Your task to perform on an android device: When is my next meeting? Image 0: 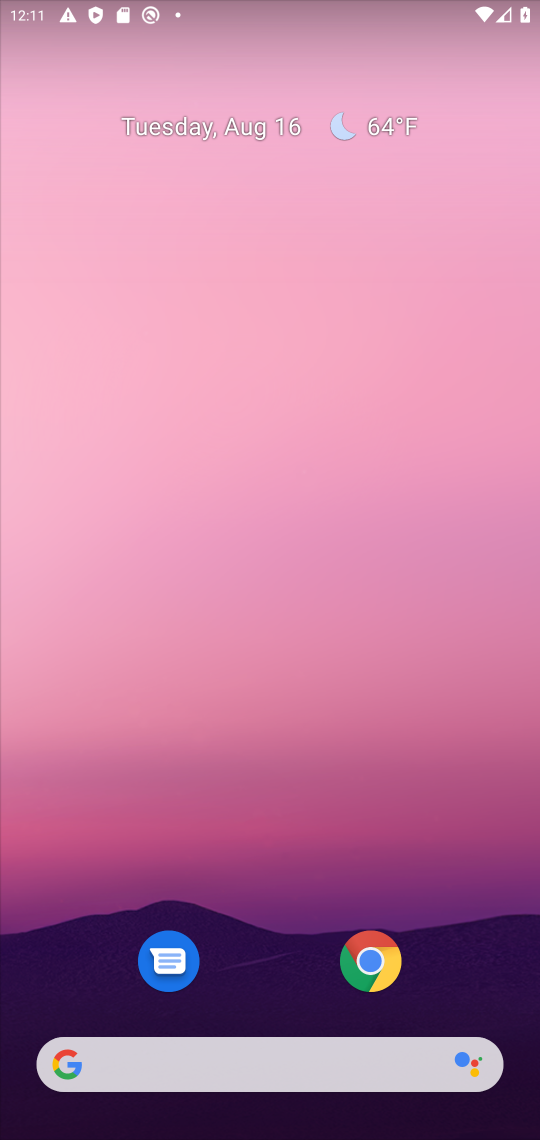
Step 0: drag from (313, 979) to (369, 127)
Your task to perform on an android device: When is my next meeting? Image 1: 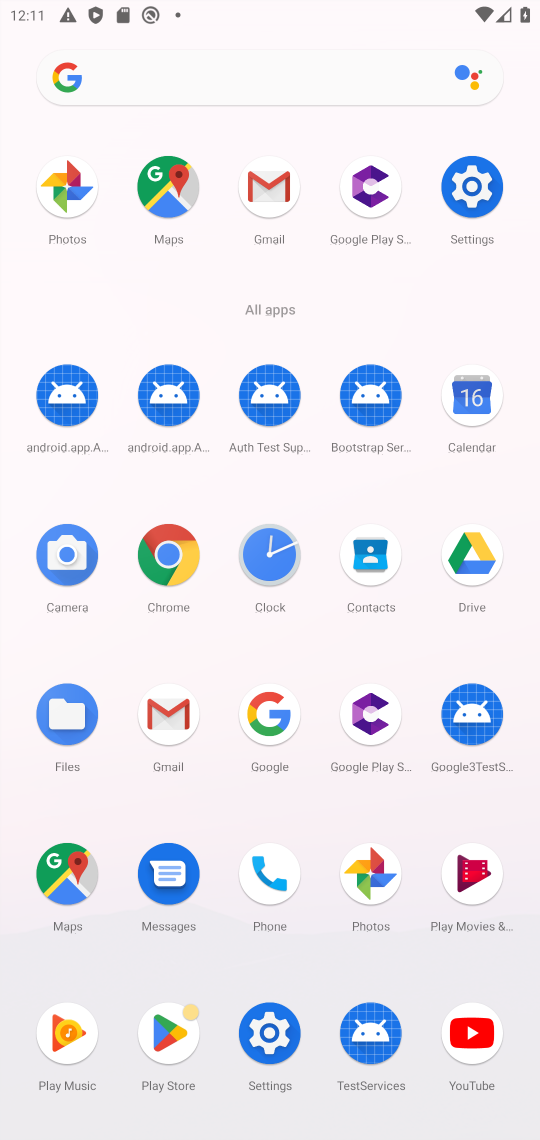
Step 1: click (468, 400)
Your task to perform on an android device: When is my next meeting? Image 2: 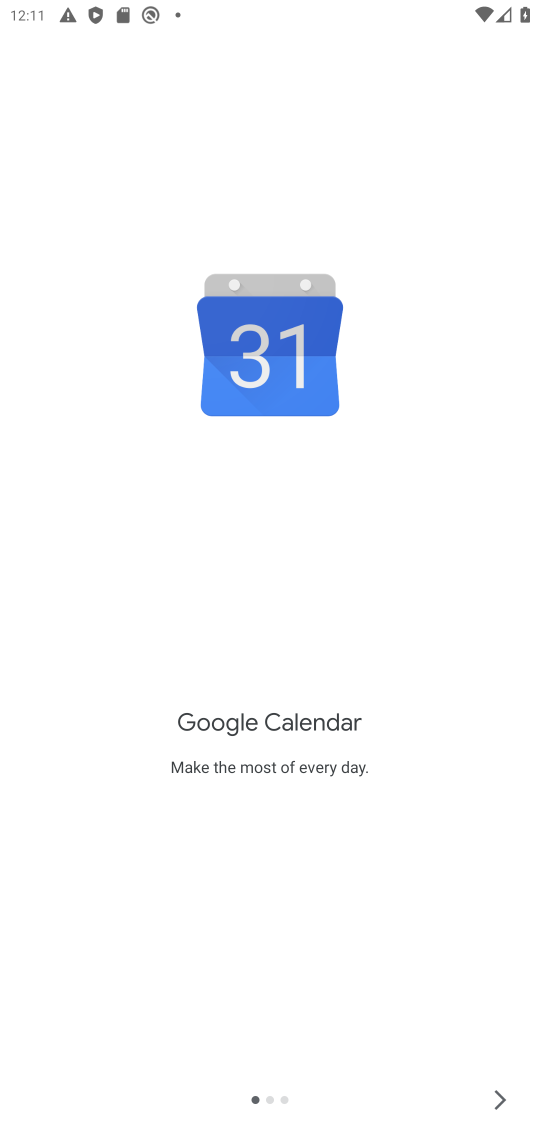
Step 2: click (498, 1101)
Your task to perform on an android device: When is my next meeting? Image 3: 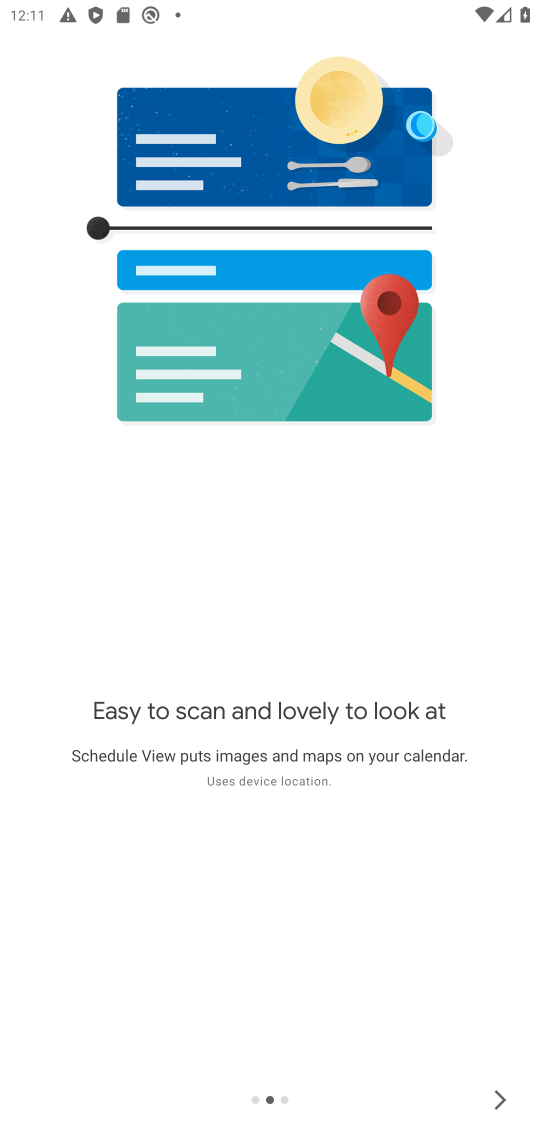
Step 3: click (498, 1101)
Your task to perform on an android device: When is my next meeting? Image 4: 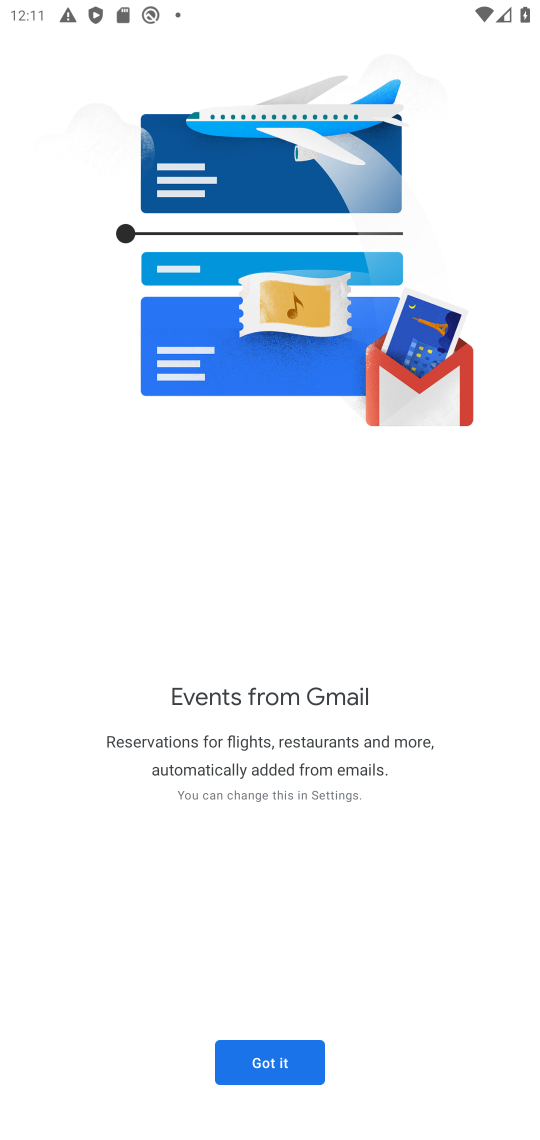
Step 4: click (286, 1067)
Your task to perform on an android device: When is my next meeting? Image 5: 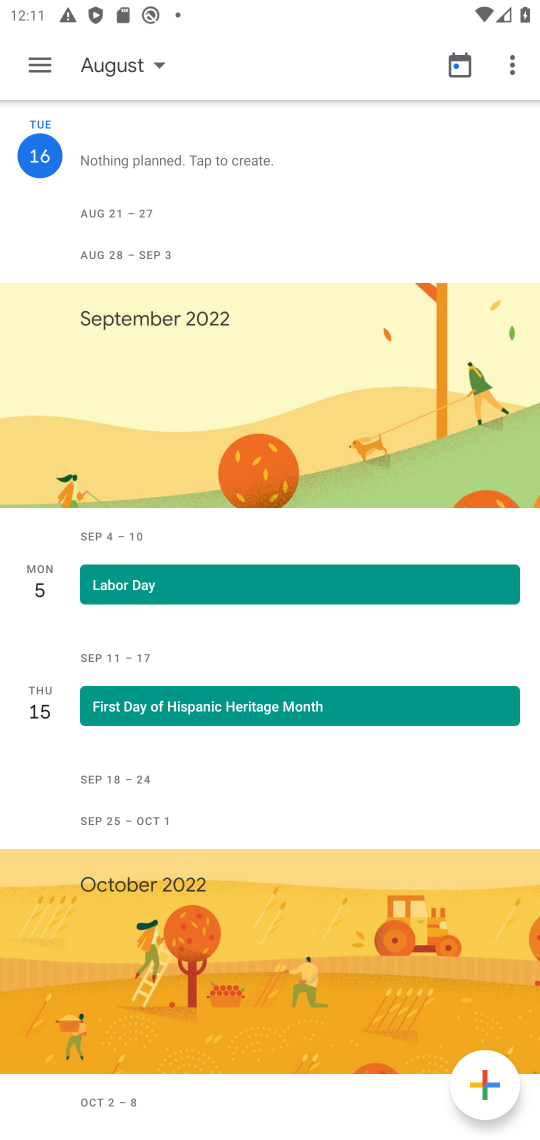
Step 5: click (126, 81)
Your task to perform on an android device: When is my next meeting? Image 6: 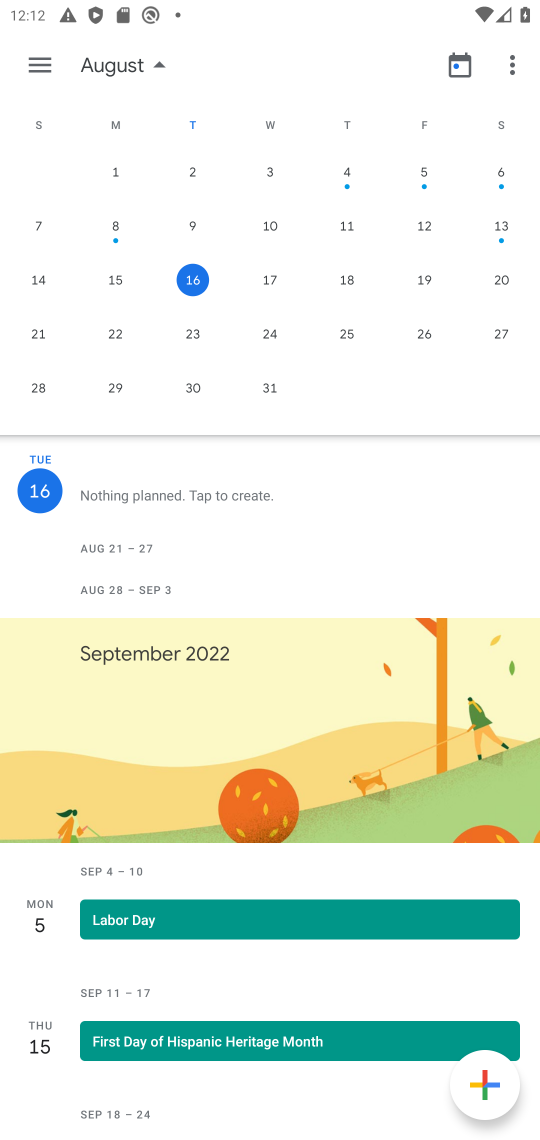
Step 6: click (256, 280)
Your task to perform on an android device: When is my next meeting? Image 7: 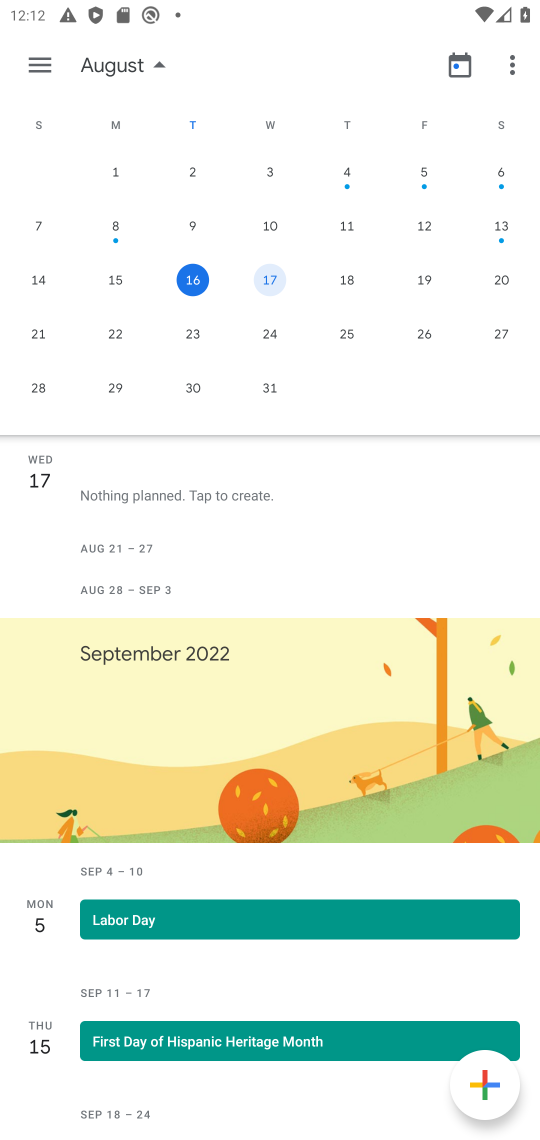
Step 7: task complete